Your task to perform on an android device: Open the map Image 0: 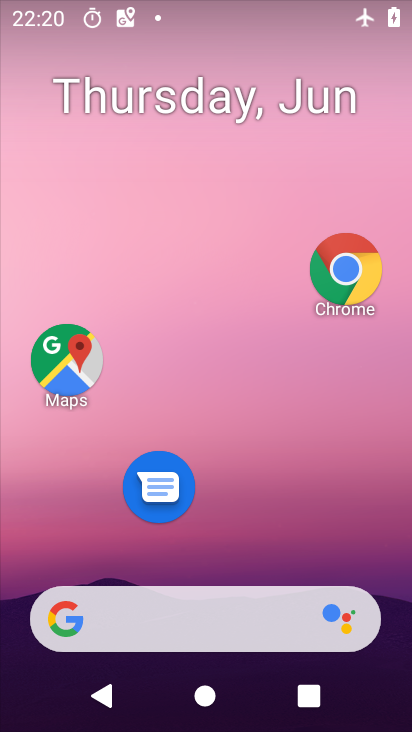
Step 0: drag from (169, 575) to (330, 45)
Your task to perform on an android device: Open the map Image 1: 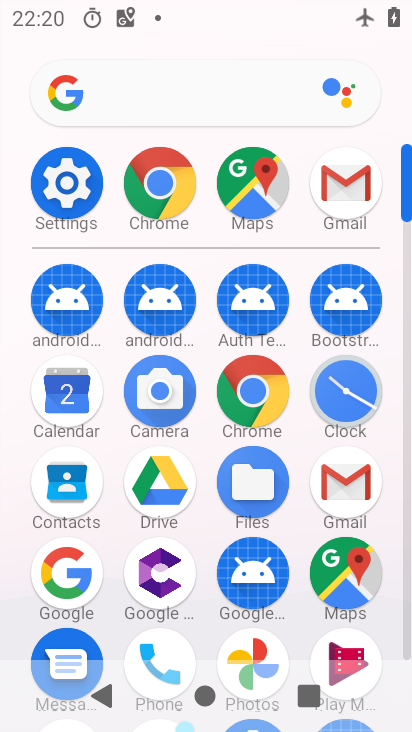
Step 1: click (337, 569)
Your task to perform on an android device: Open the map Image 2: 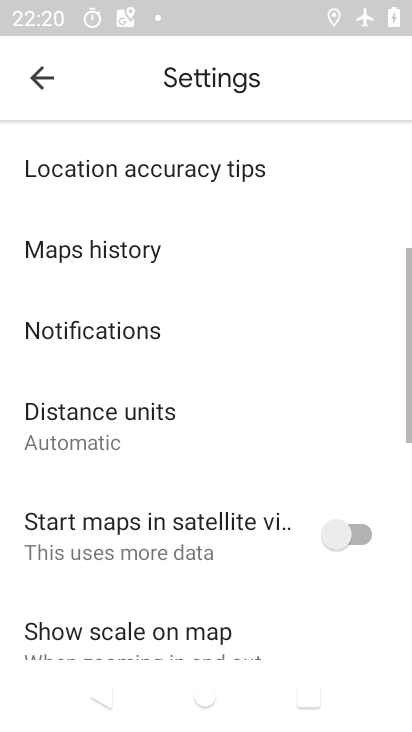
Step 2: drag from (185, 545) to (216, 64)
Your task to perform on an android device: Open the map Image 3: 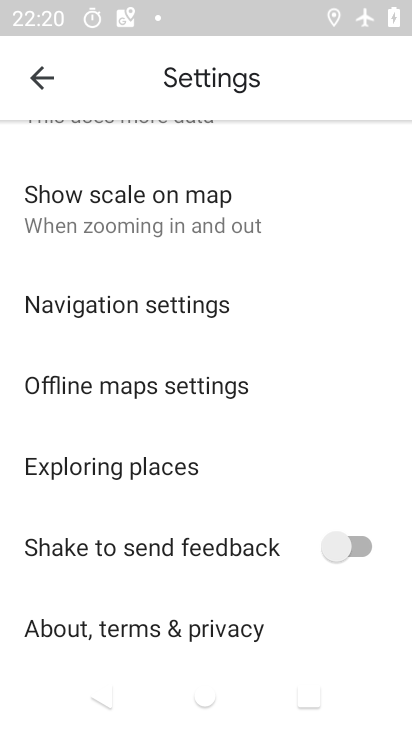
Step 3: click (40, 66)
Your task to perform on an android device: Open the map Image 4: 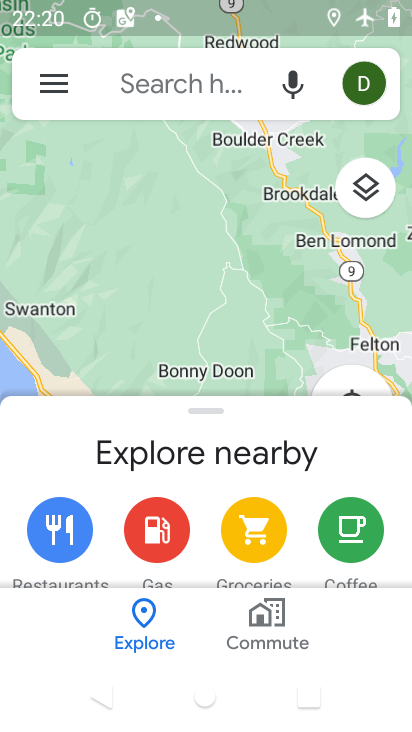
Step 4: task complete